Your task to perform on an android device: change the upload size in google photos Image 0: 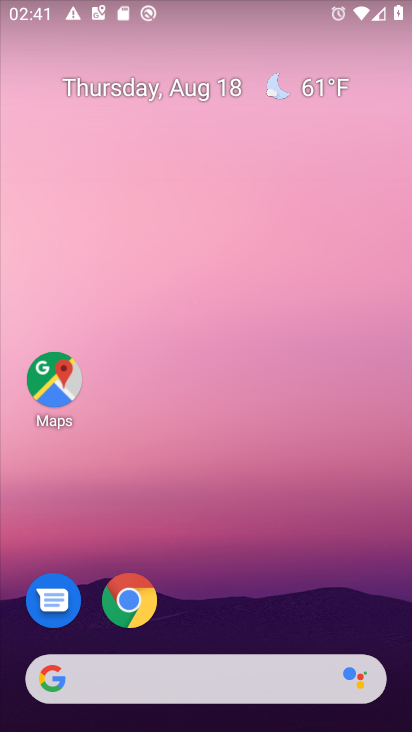
Step 0: press home button
Your task to perform on an android device: change the upload size in google photos Image 1: 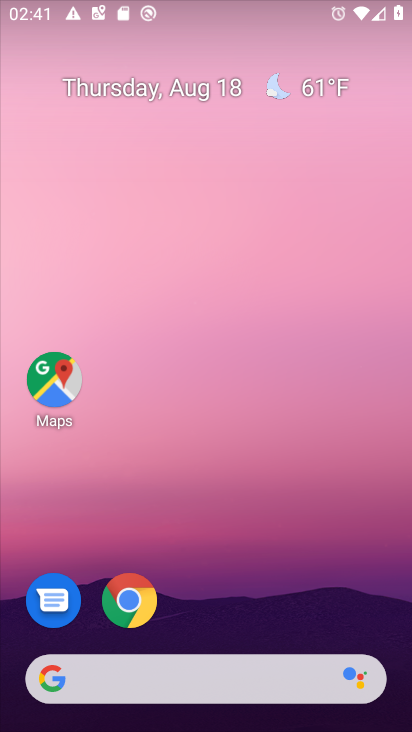
Step 1: drag from (221, 610) to (215, 7)
Your task to perform on an android device: change the upload size in google photos Image 2: 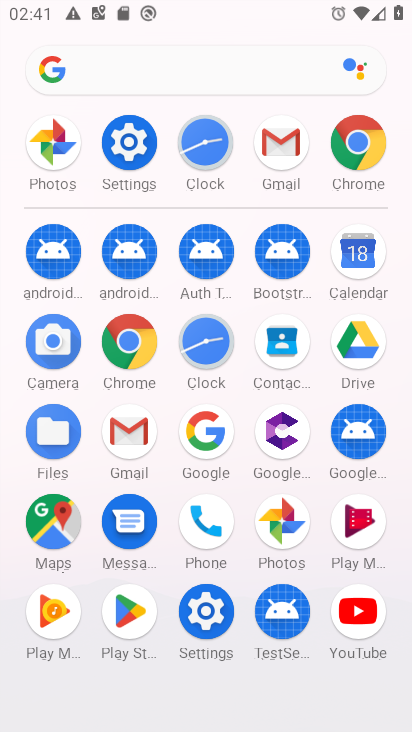
Step 2: click (290, 525)
Your task to perform on an android device: change the upload size in google photos Image 3: 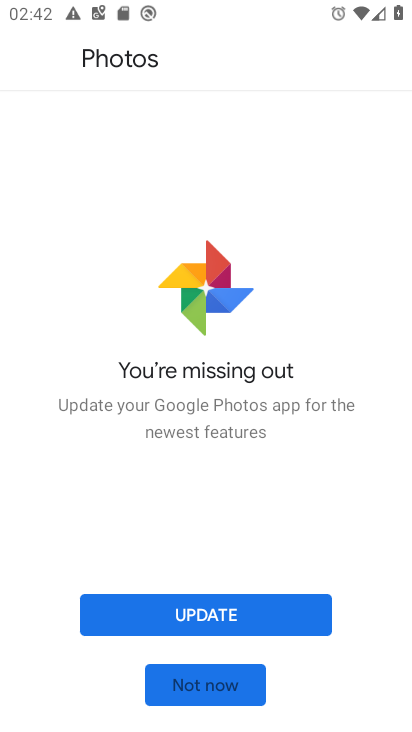
Step 3: click (213, 682)
Your task to perform on an android device: change the upload size in google photos Image 4: 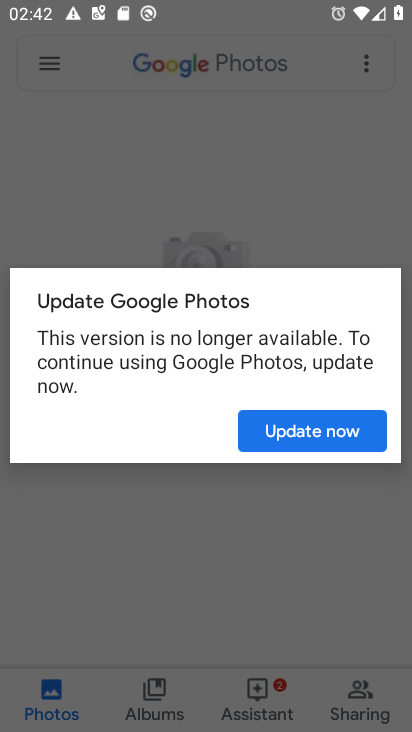
Step 4: click (320, 440)
Your task to perform on an android device: change the upload size in google photos Image 5: 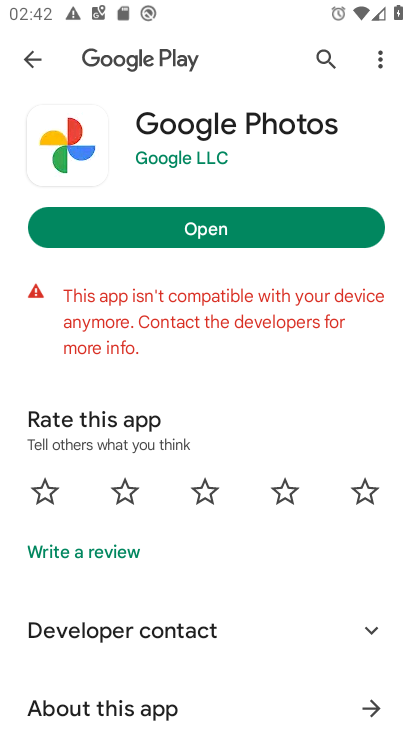
Step 5: task complete